Your task to perform on an android device: Go to Amazon Image 0: 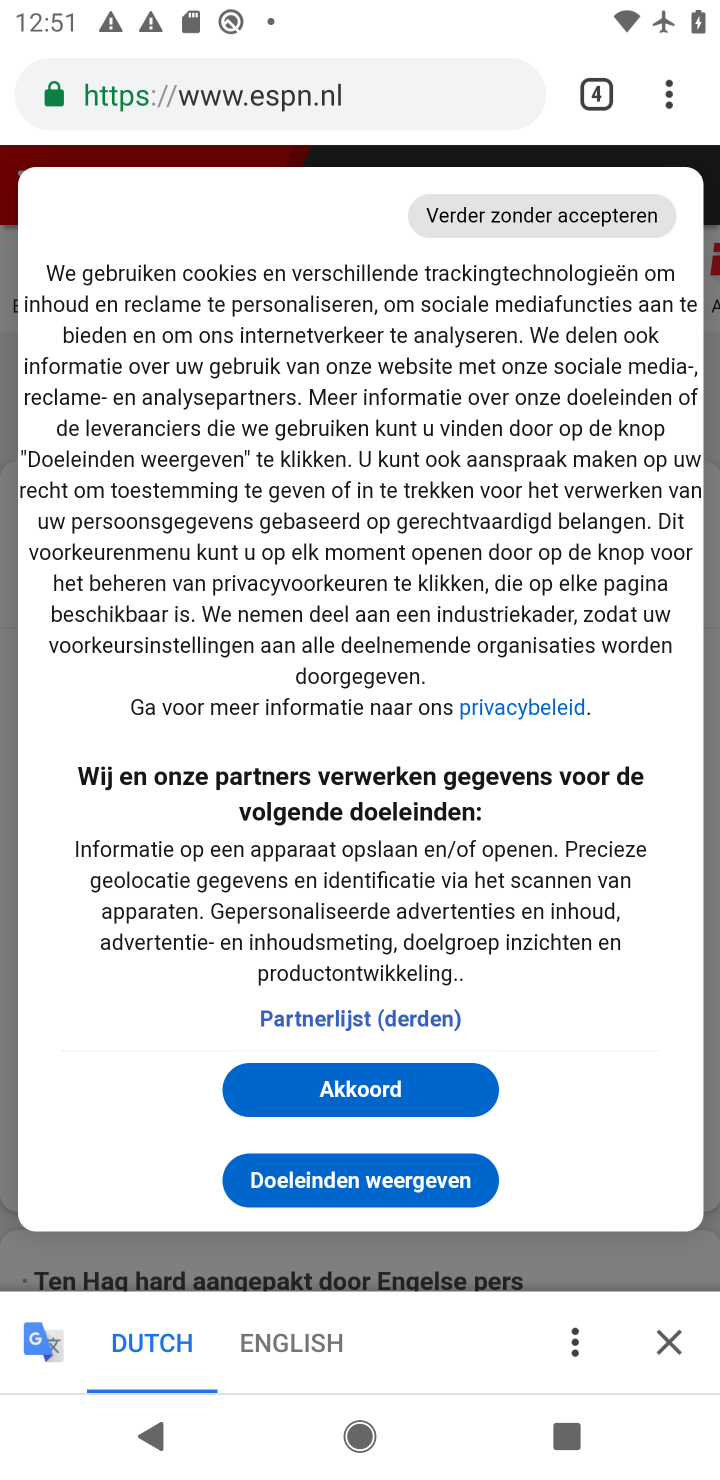
Step 0: click (418, 60)
Your task to perform on an android device: Go to Amazon Image 1: 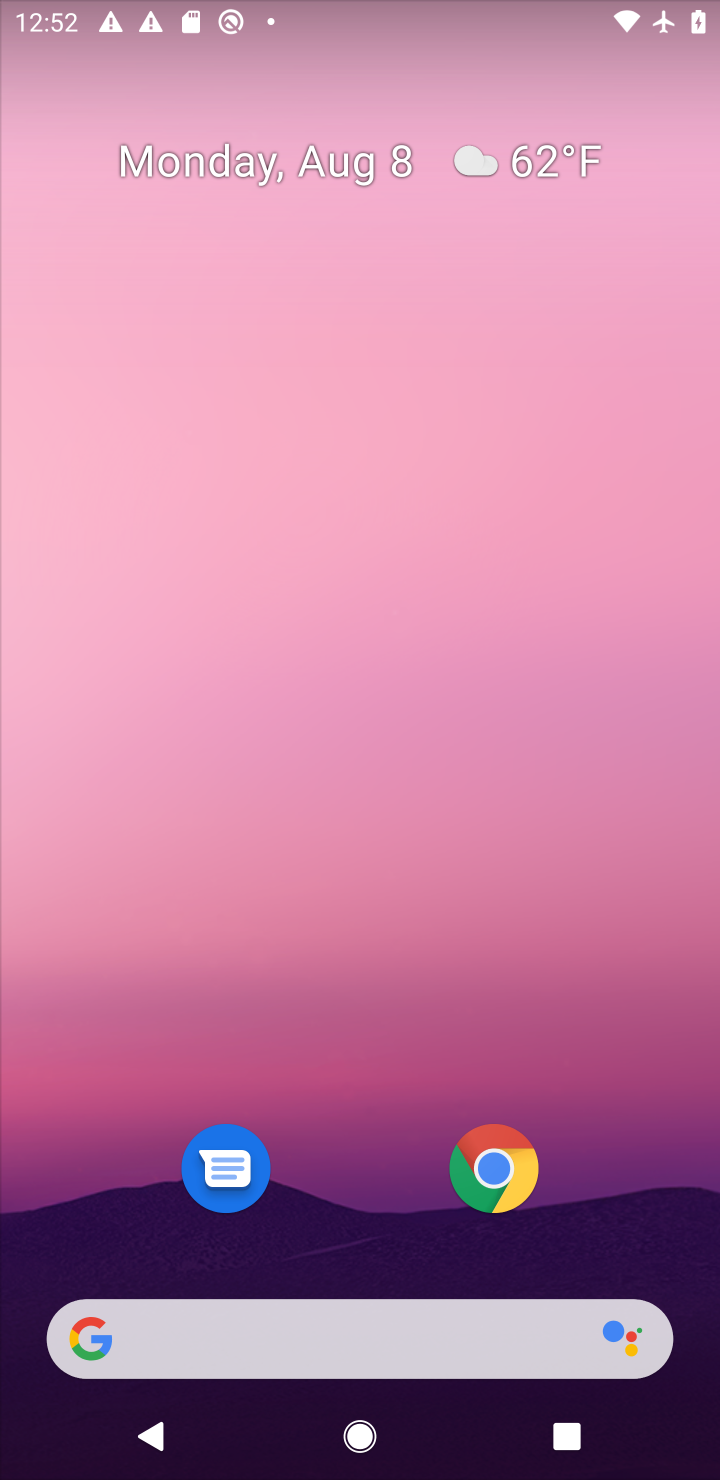
Step 1: press home button
Your task to perform on an android device: Go to Amazon Image 2: 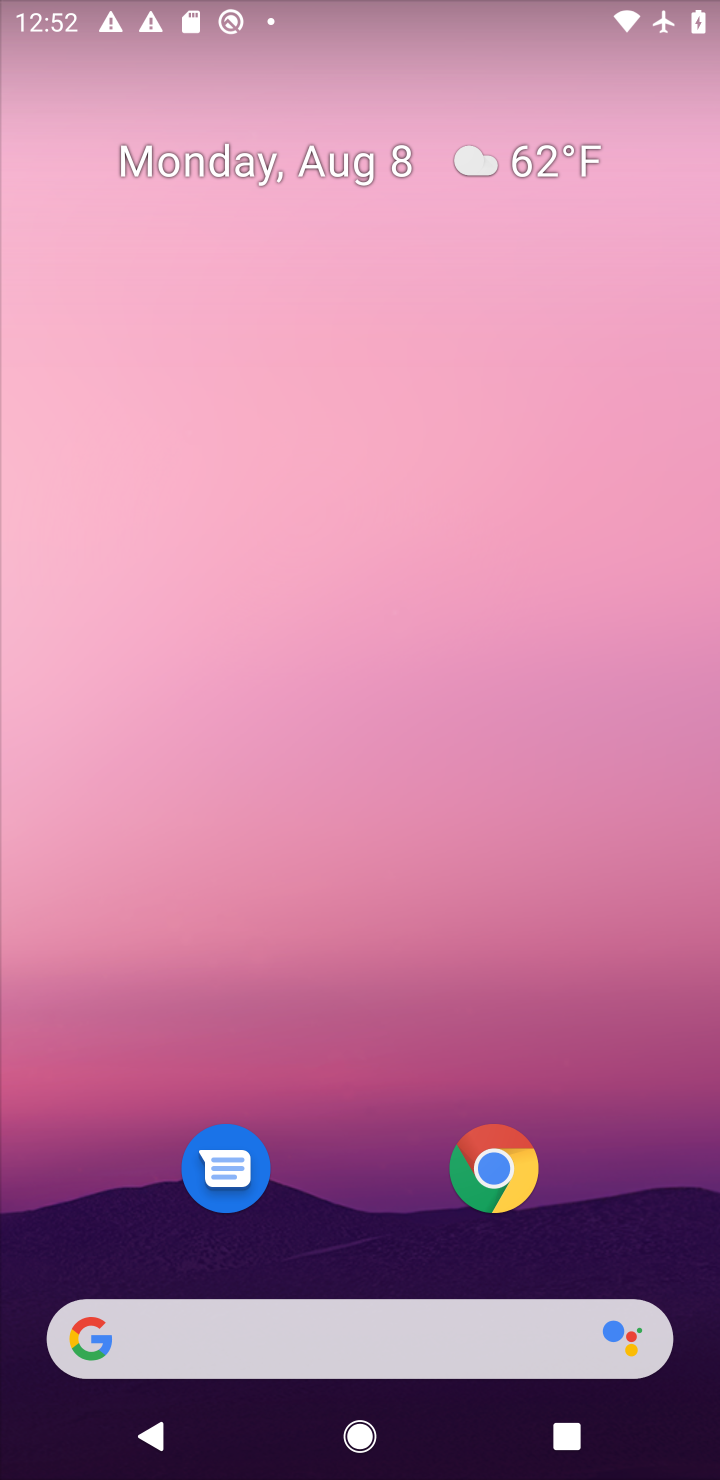
Step 2: click (499, 1183)
Your task to perform on an android device: Go to Amazon Image 3: 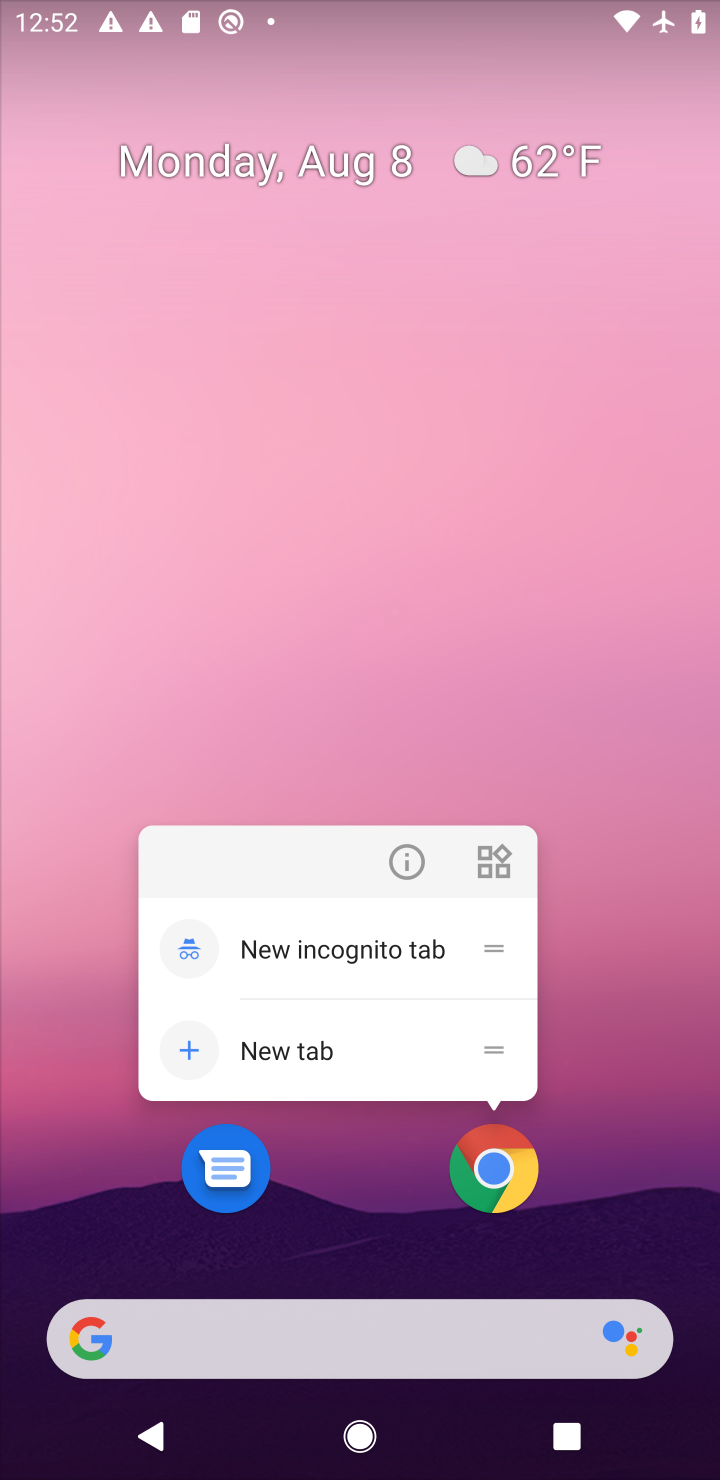
Step 3: click (501, 1161)
Your task to perform on an android device: Go to Amazon Image 4: 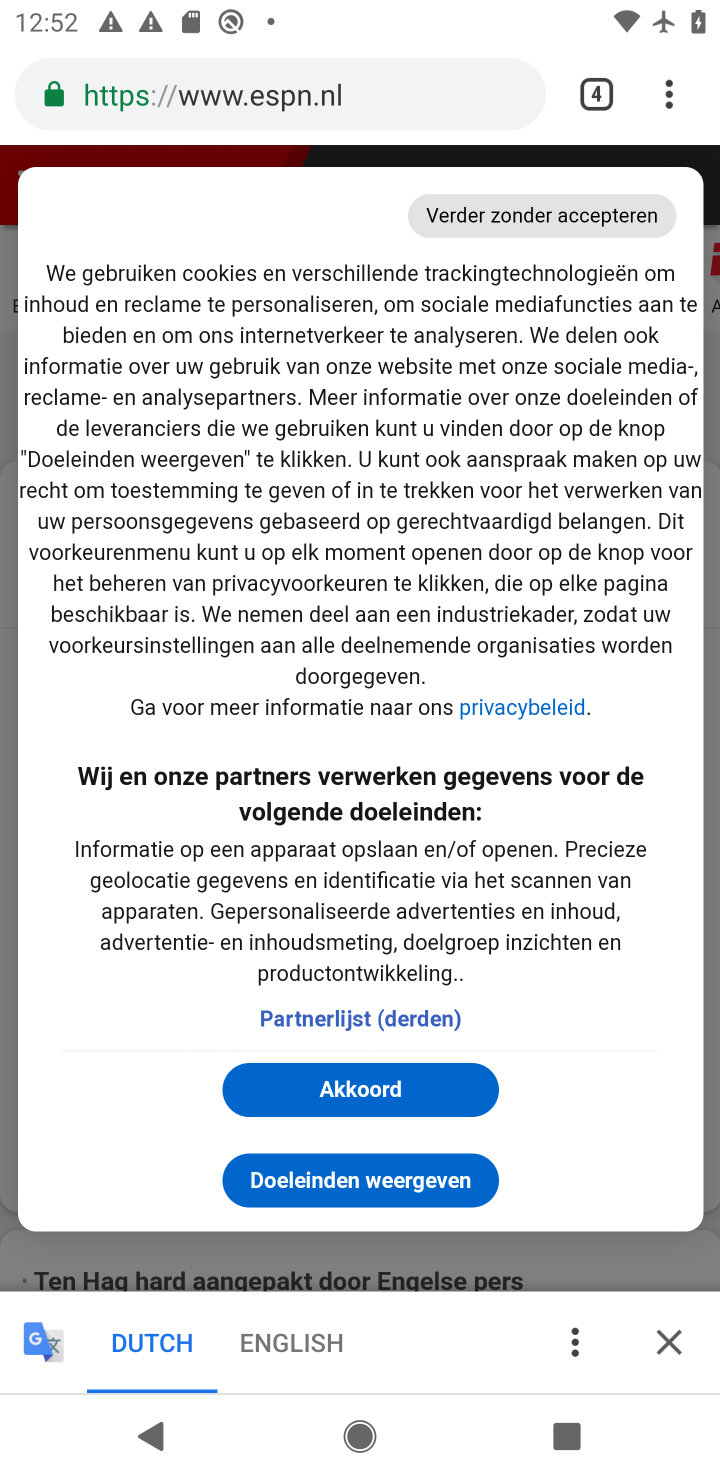
Step 4: click (376, 94)
Your task to perform on an android device: Go to Amazon Image 5: 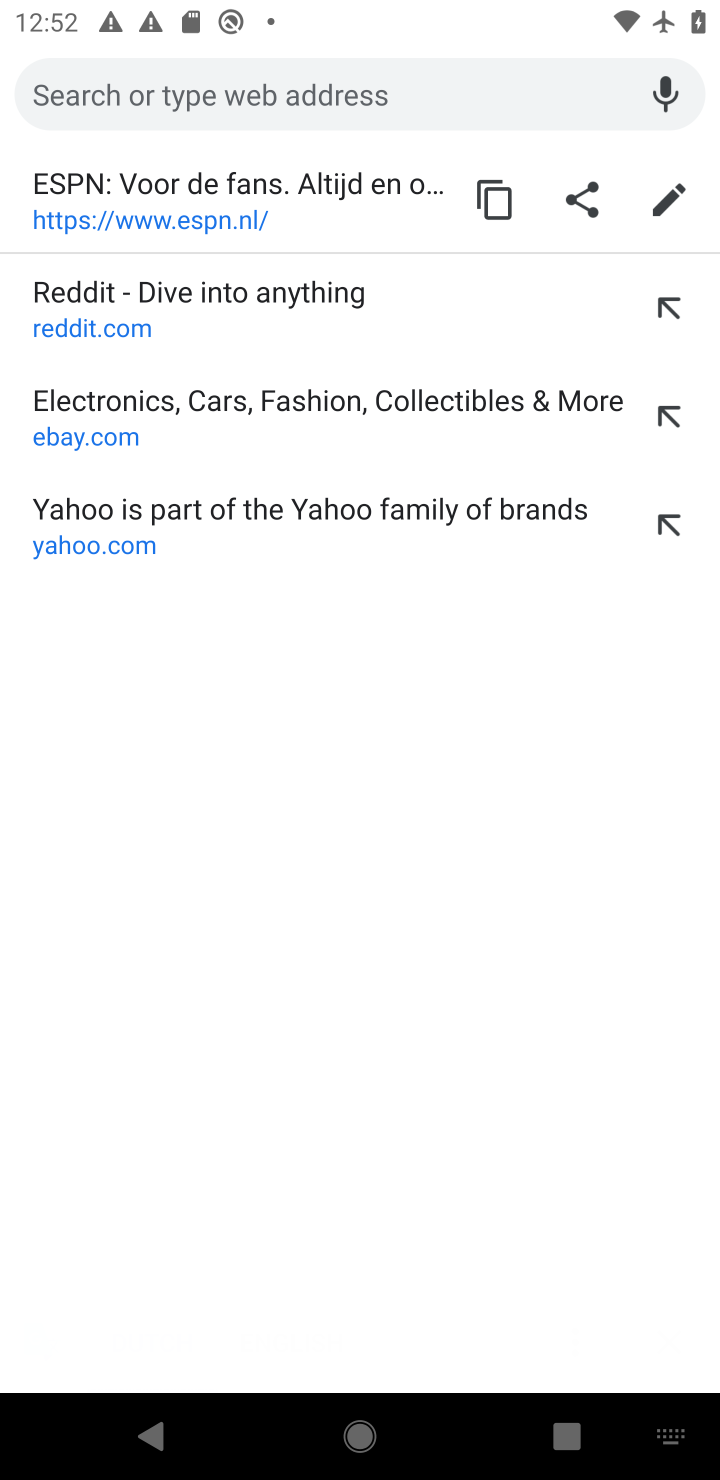
Step 5: type "amazon"
Your task to perform on an android device: Go to Amazon Image 6: 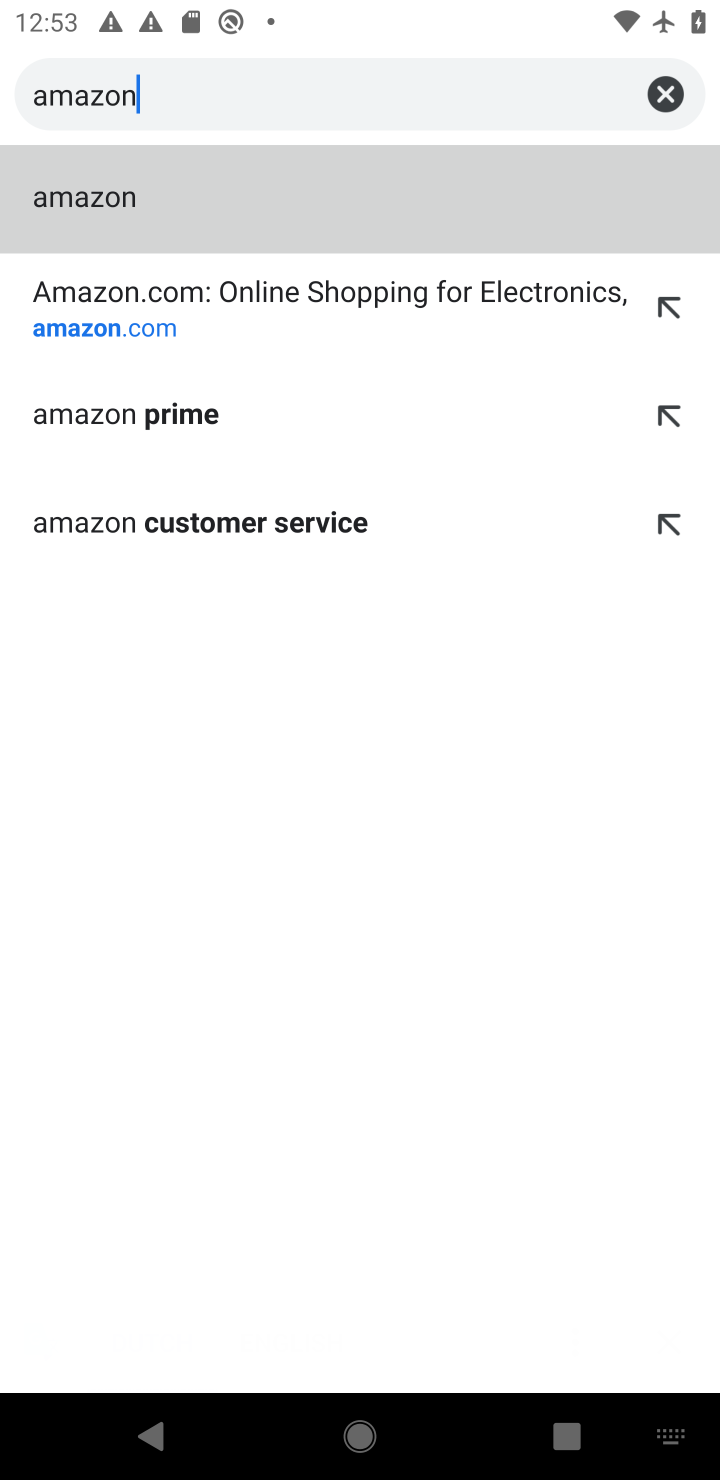
Step 6: click (194, 269)
Your task to perform on an android device: Go to Amazon Image 7: 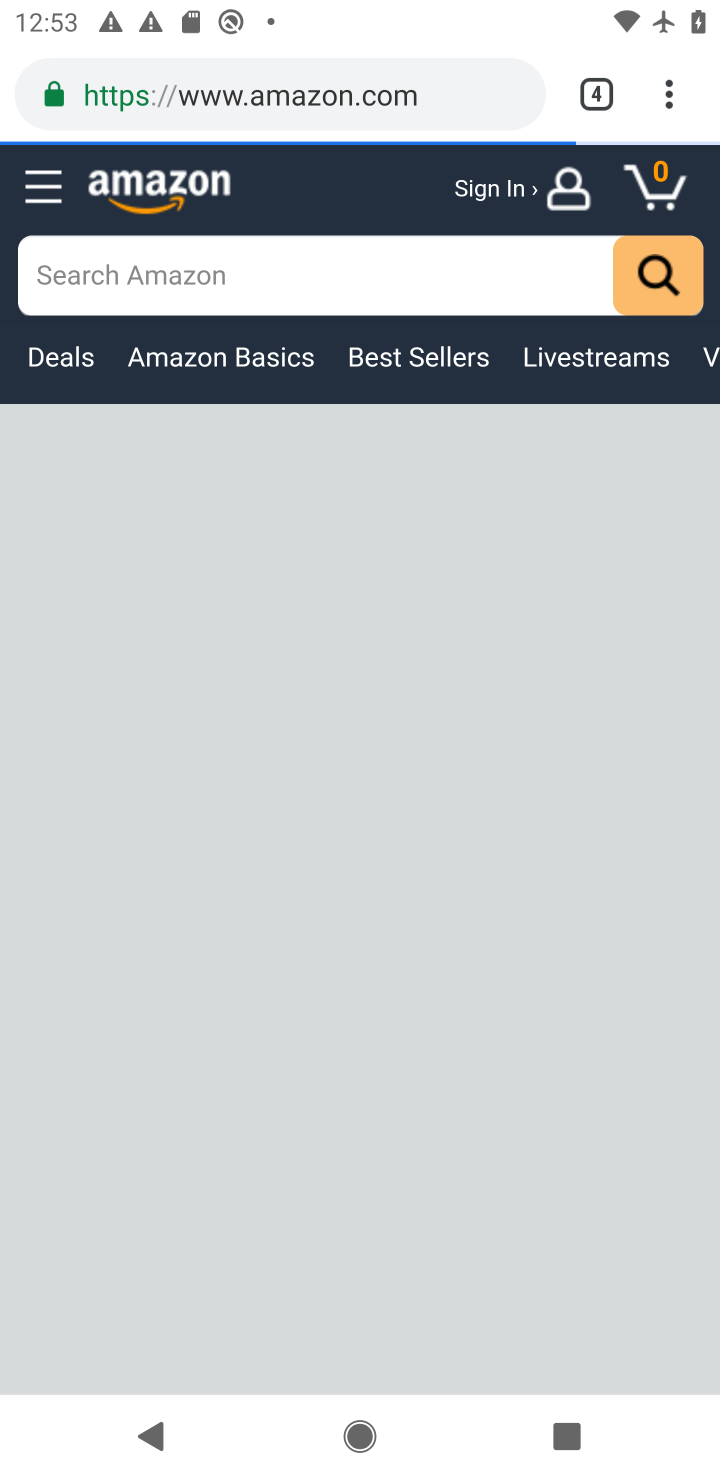
Step 7: task complete